Your task to perform on an android device: Open accessibility settings Image 0: 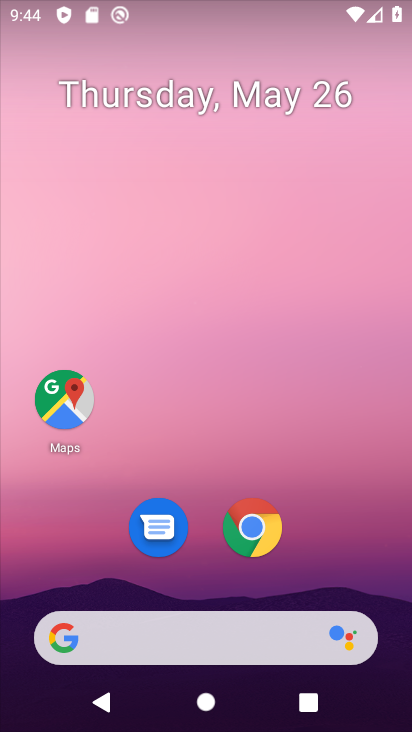
Step 0: drag from (158, 730) to (176, 136)
Your task to perform on an android device: Open accessibility settings Image 1: 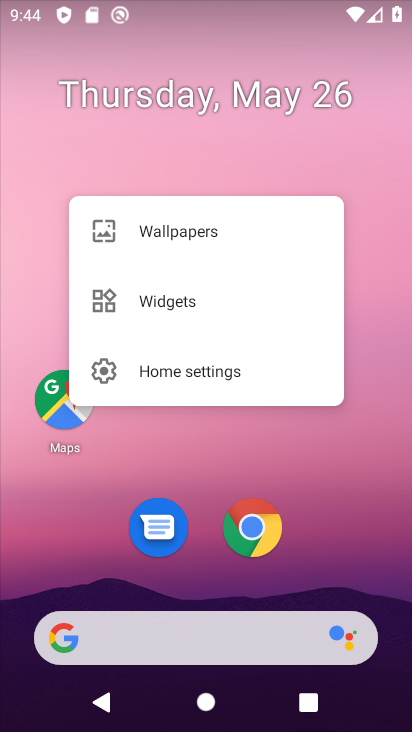
Step 1: press home button
Your task to perform on an android device: Open accessibility settings Image 2: 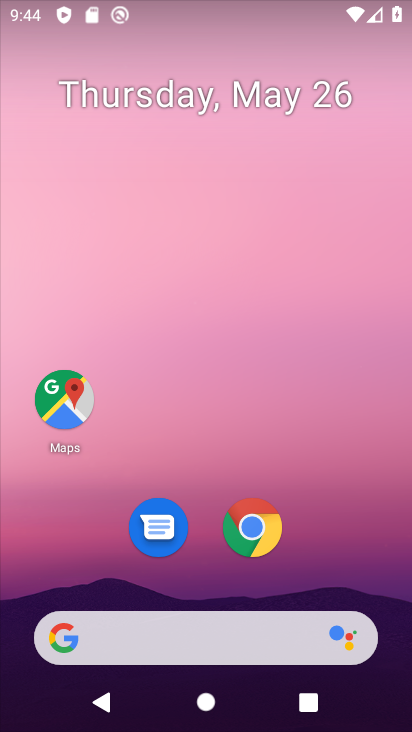
Step 2: drag from (188, 678) to (141, 34)
Your task to perform on an android device: Open accessibility settings Image 3: 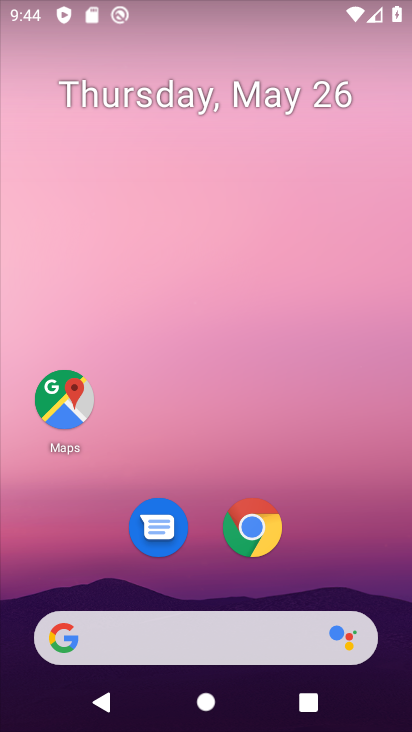
Step 3: drag from (161, 723) to (145, 9)
Your task to perform on an android device: Open accessibility settings Image 4: 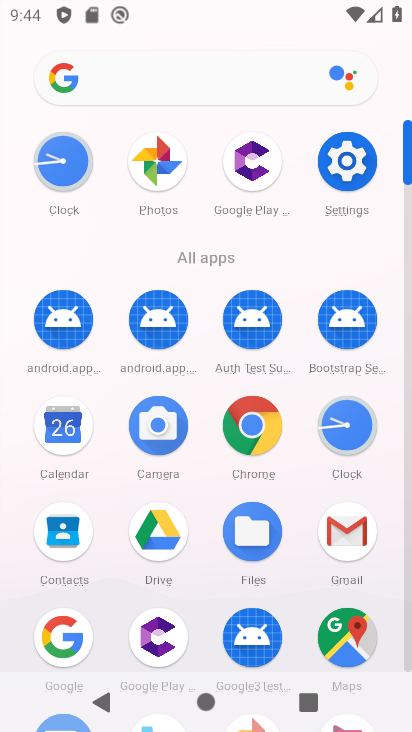
Step 4: click (358, 173)
Your task to perform on an android device: Open accessibility settings Image 5: 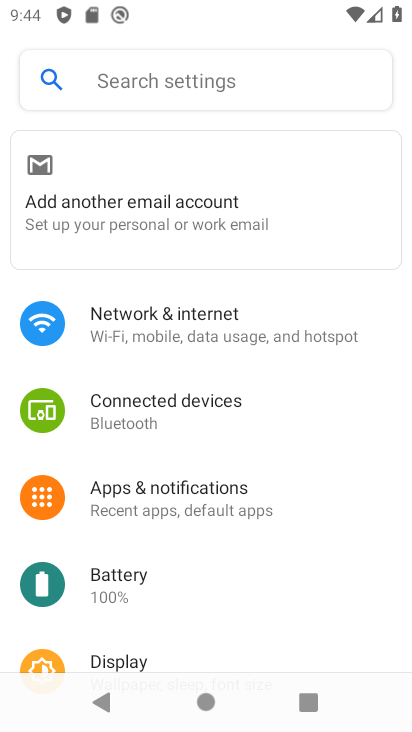
Step 5: drag from (305, 588) to (328, 273)
Your task to perform on an android device: Open accessibility settings Image 6: 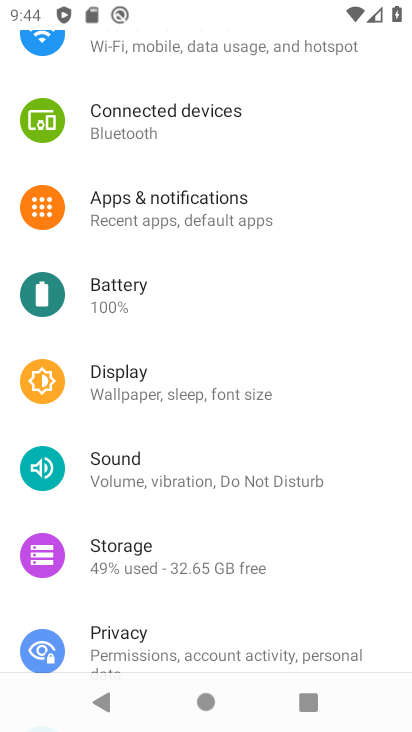
Step 6: drag from (295, 583) to (270, 157)
Your task to perform on an android device: Open accessibility settings Image 7: 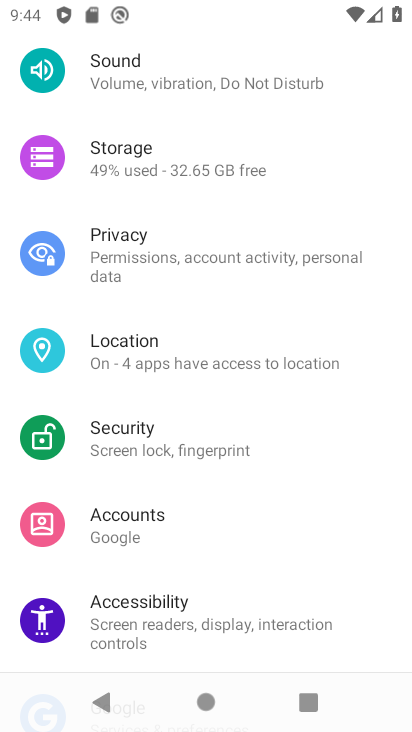
Step 7: click (201, 626)
Your task to perform on an android device: Open accessibility settings Image 8: 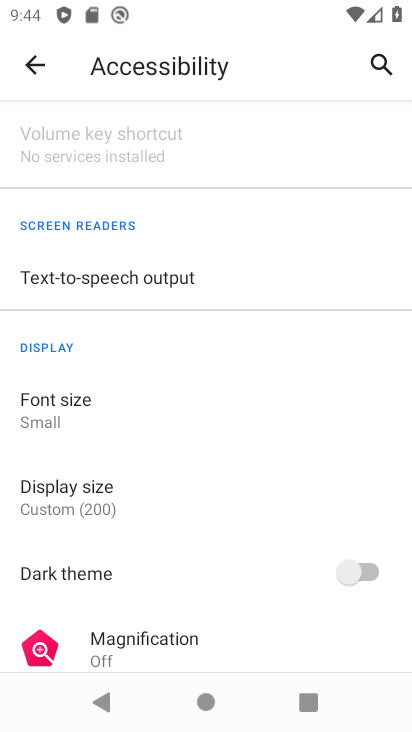
Step 8: task complete